Your task to perform on an android device: turn off javascript in the chrome app Image 0: 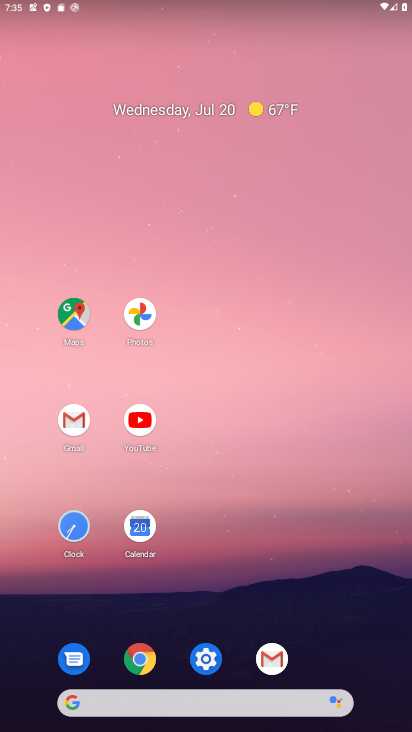
Step 0: click (141, 655)
Your task to perform on an android device: turn off javascript in the chrome app Image 1: 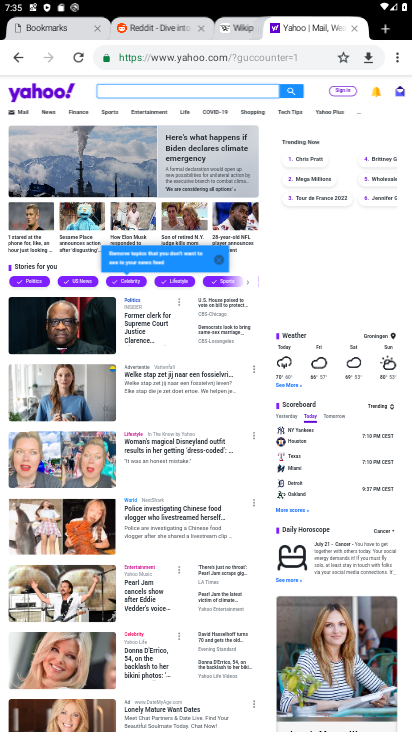
Step 1: click (397, 62)
Your task to perform on an android device: turn off javascript in the chrome app Image 2: 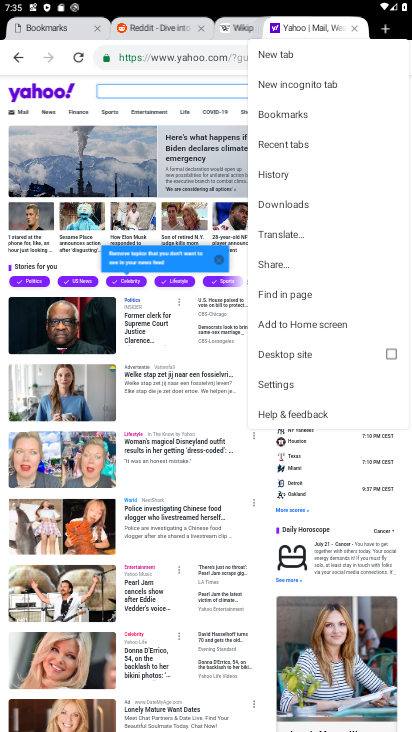
Step 2: click (284, 382)
Your task to perform on an android device: turn off javascript in the chrome app Image 3: 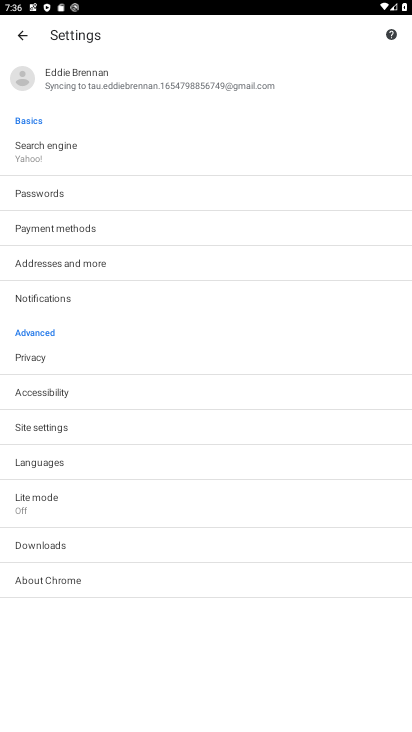
Step 3: click (43, 424)
Your task to perform on an android device: turn off javascript in the chrome app Image 4: 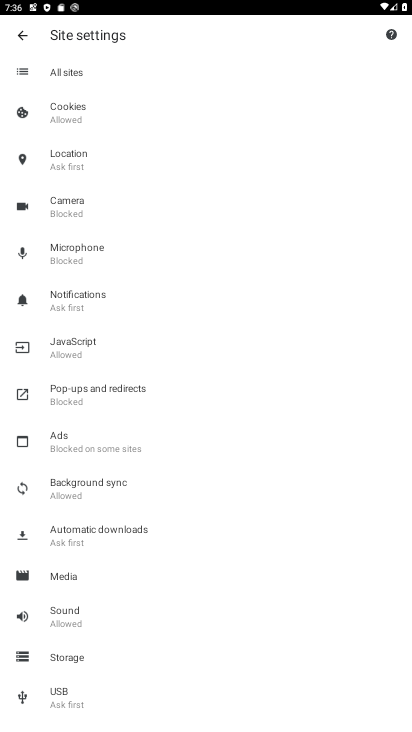
Step 4: click (77, 340)
Your task to perform on an android device: turn off javascript in the chrome app Image 5: 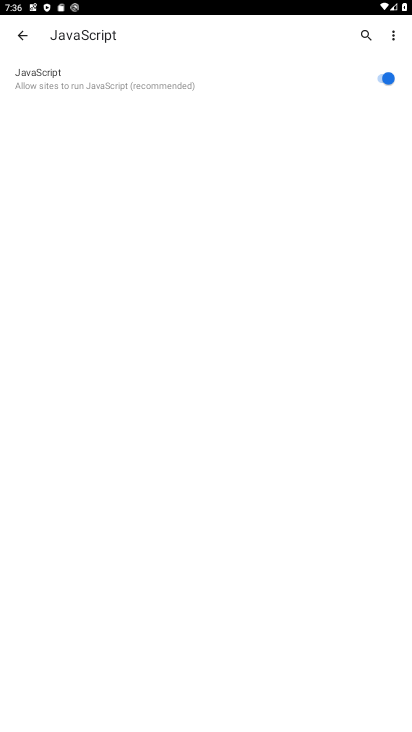
Step 5: click (384, 80)
Your task to perform on an android device: turn off javascript in the chrome app Image 6: 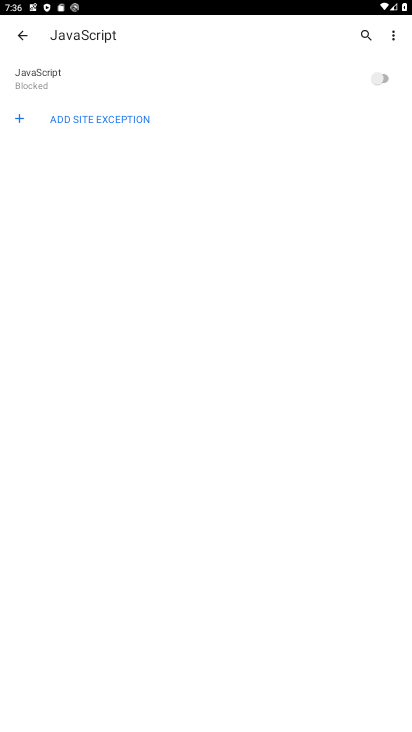
Step 6: task complete